Your task to perform on an android device: turn vacation reply on in the gmail app Image 0: 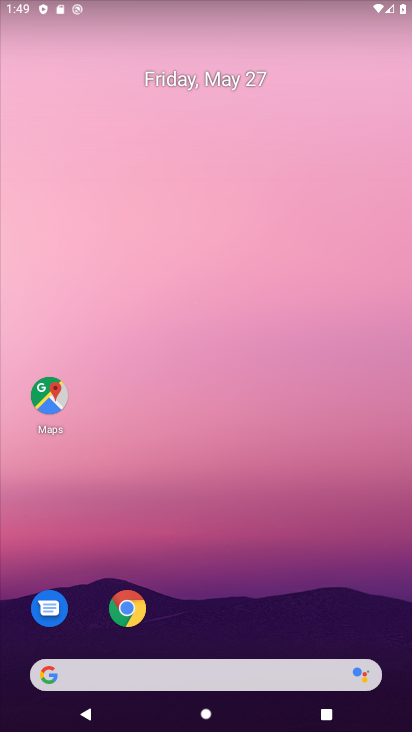
Step 0: press home button
Your task to perform on an android device: turn vacation reply on in the gmail app Image 1: 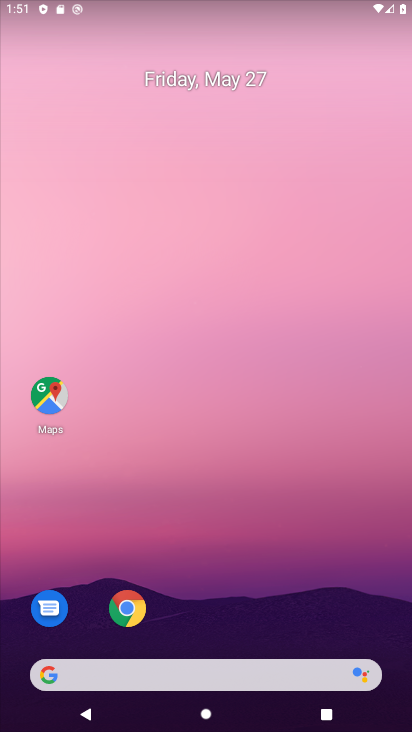
Step 1: drag from (268, 566) to (308, 145)
Your task to perform on an android device: turn vacation reply on in the gmail app Image 2: 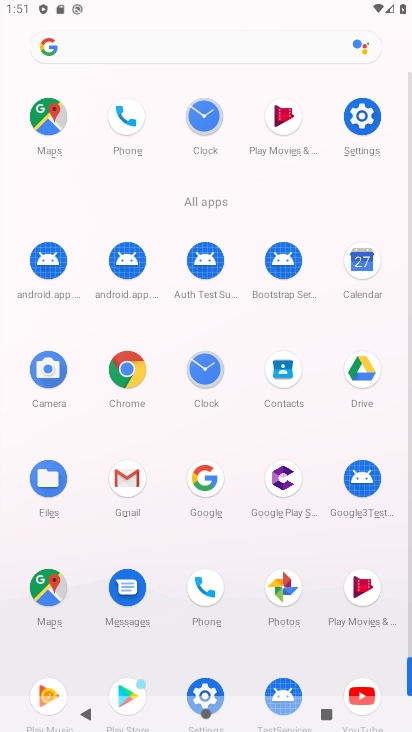
Step 2: click (131, 484)
Your task to perform on an android device: turn vacation reply on in the gmail app Image 3: 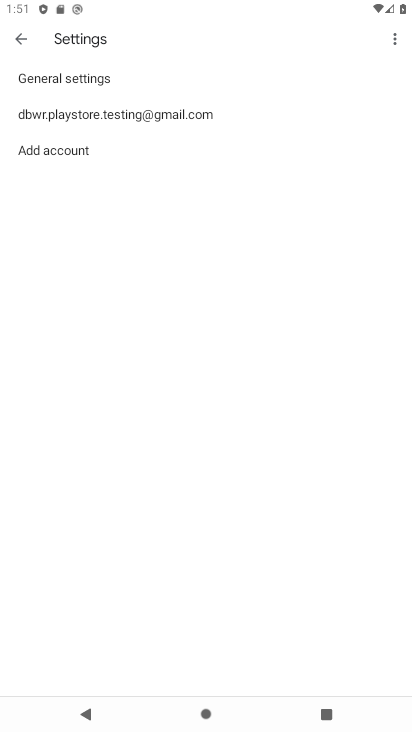
Step 3: click (149, 110)
Your task to perform on an android device: turn vacation reply on in the gmail app Image 4: 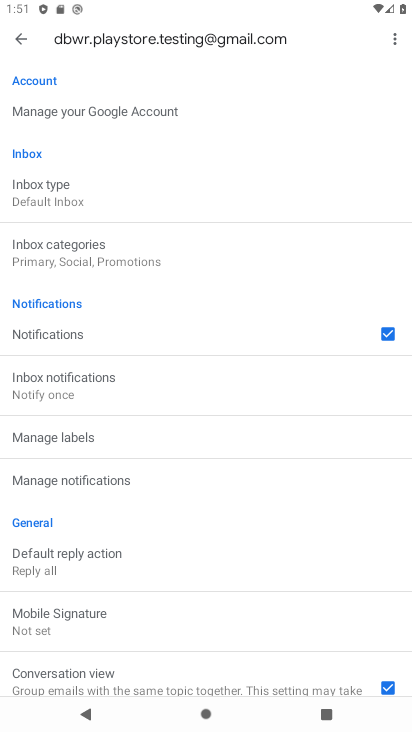
Step 4: drag from (223, 642) to (170, 257)
Your task to perform on an android device: turn vacation reply on in the gmail app Image 5: 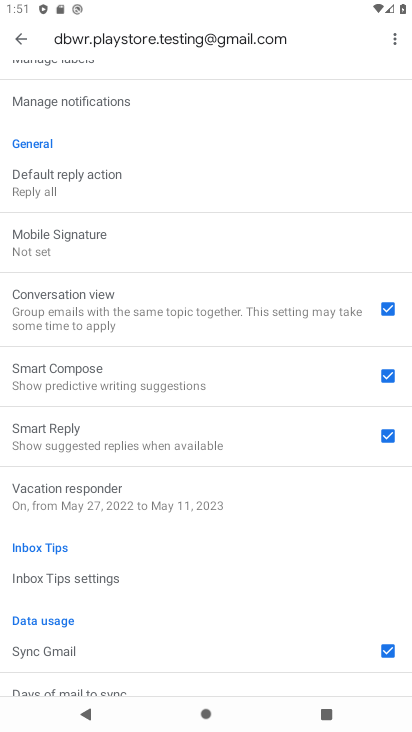
Step 5: click (144, 496)
Your task to perform on an android device: turn vacation reply on in the gmail app Image 6: 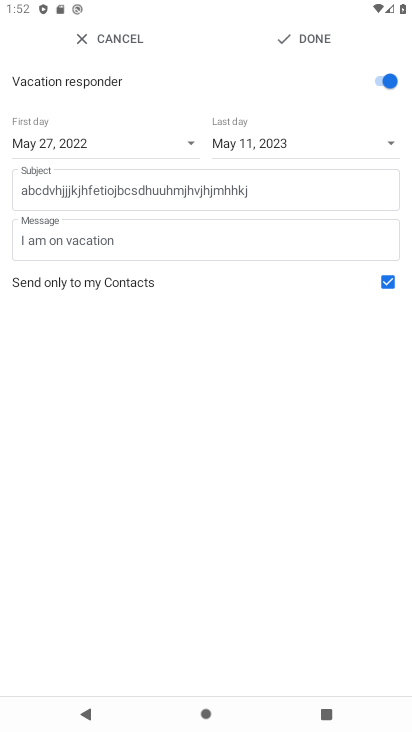
Step 6: task complete